Your task to perform on an android device: Search for seafood restaurants on Google Maps Image 0: 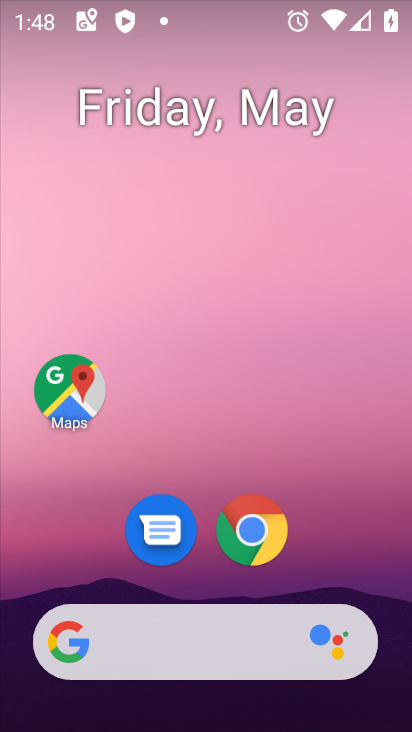
Step 0: click (67, 416)
Your task to perform on an android device: Search for seafood restaurants on Google Maps Image 1: 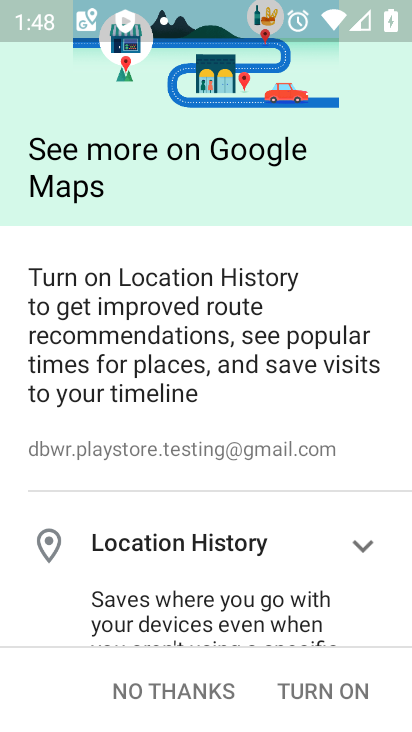
Step 1: click (169, 684)
Your task to perform on an android device: Search for seafood restaurants on Google Maps Image 2: 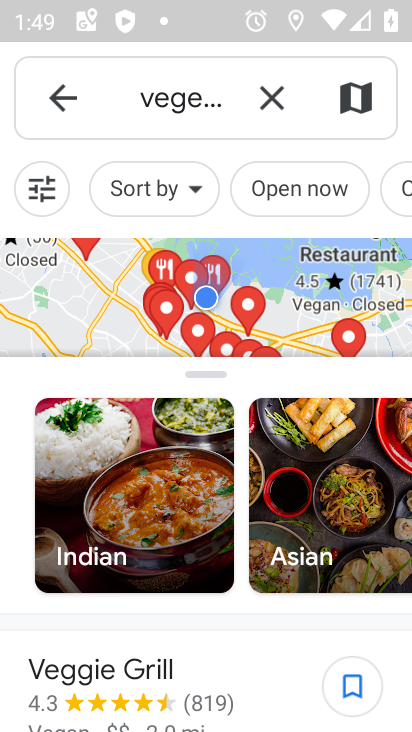
Step 2: click (282, 91)
Your task to perform on an android device: Search for seafood restaurants on Google Maps Image 3: 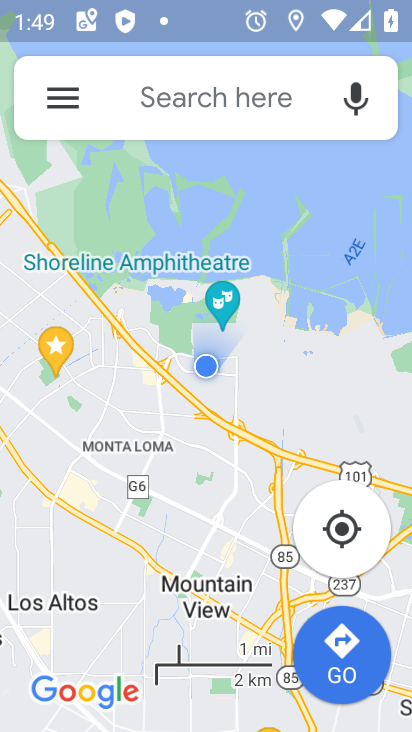
Step 3: click (225, 90)
Your task to perform on an android device: Search for seafood restaurants on Google Maps Image 4: 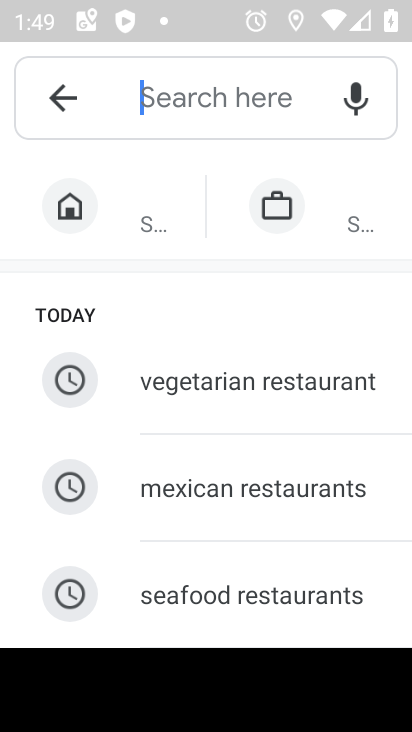
Step 4: type "seafood restaurants"
Your task to perform on an android device: Search for seafood restaurants on Google Maps Image 5: 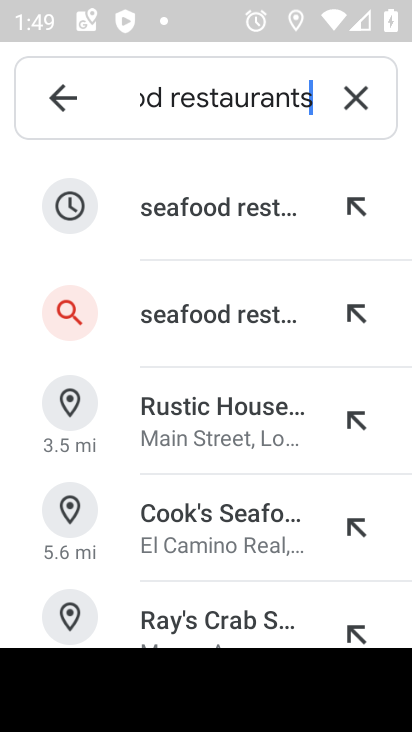
Step 5: click (217, 301)
Your task to perform on an android device: Search for seafood restaurants on Google Maps Image 6: 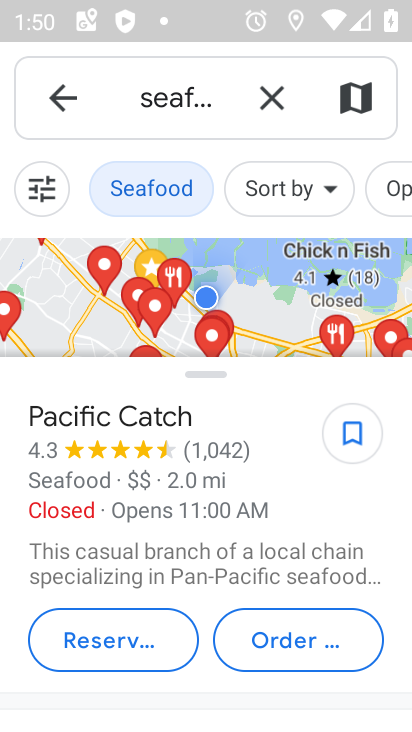
Step 6: task complete